Your task to perform on an android device: Clear all items from cart on target.com. Add "logitech g pro" to the cart on target.com Image 0: 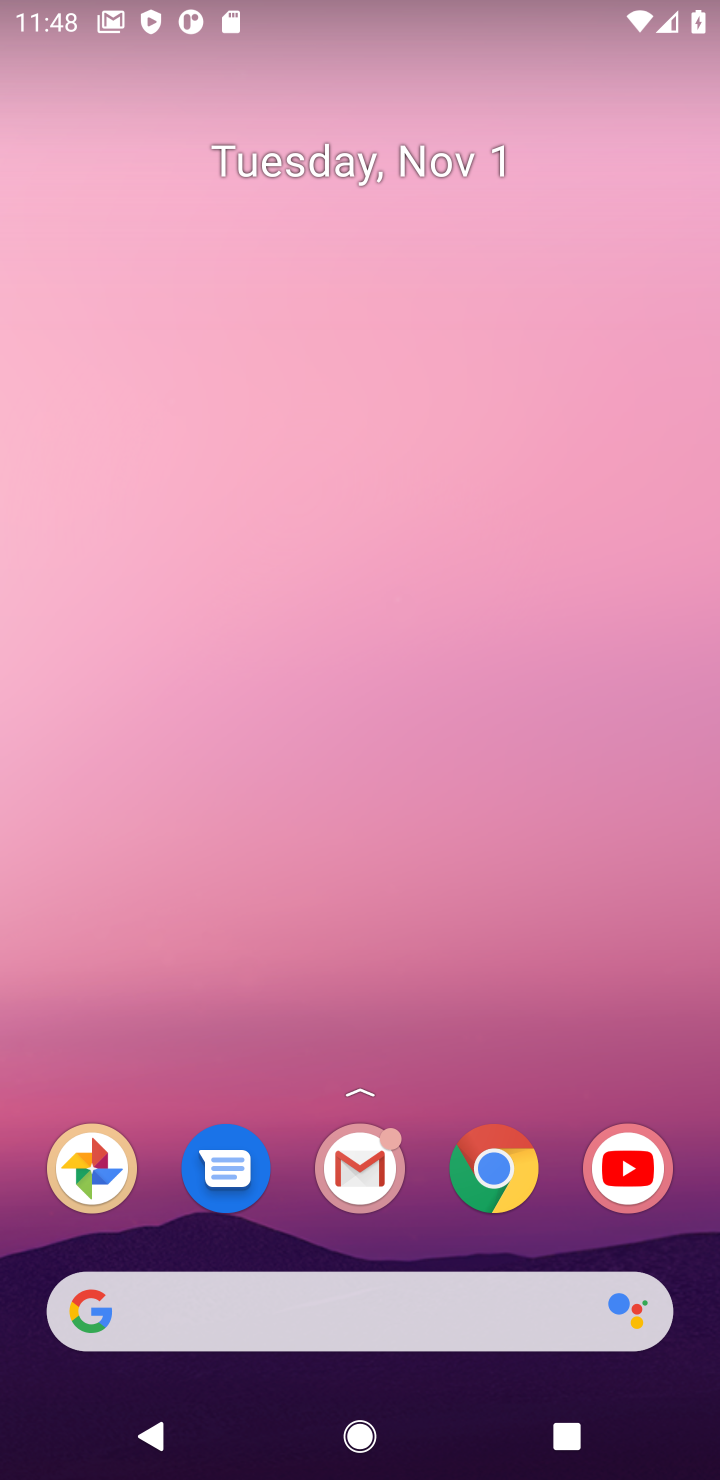
Step 0: click (507, 1163)
Your task to perform on an android device: Clear all items from cart on target.com. Add "logitech g pro" to the cart on target.com Image 1: 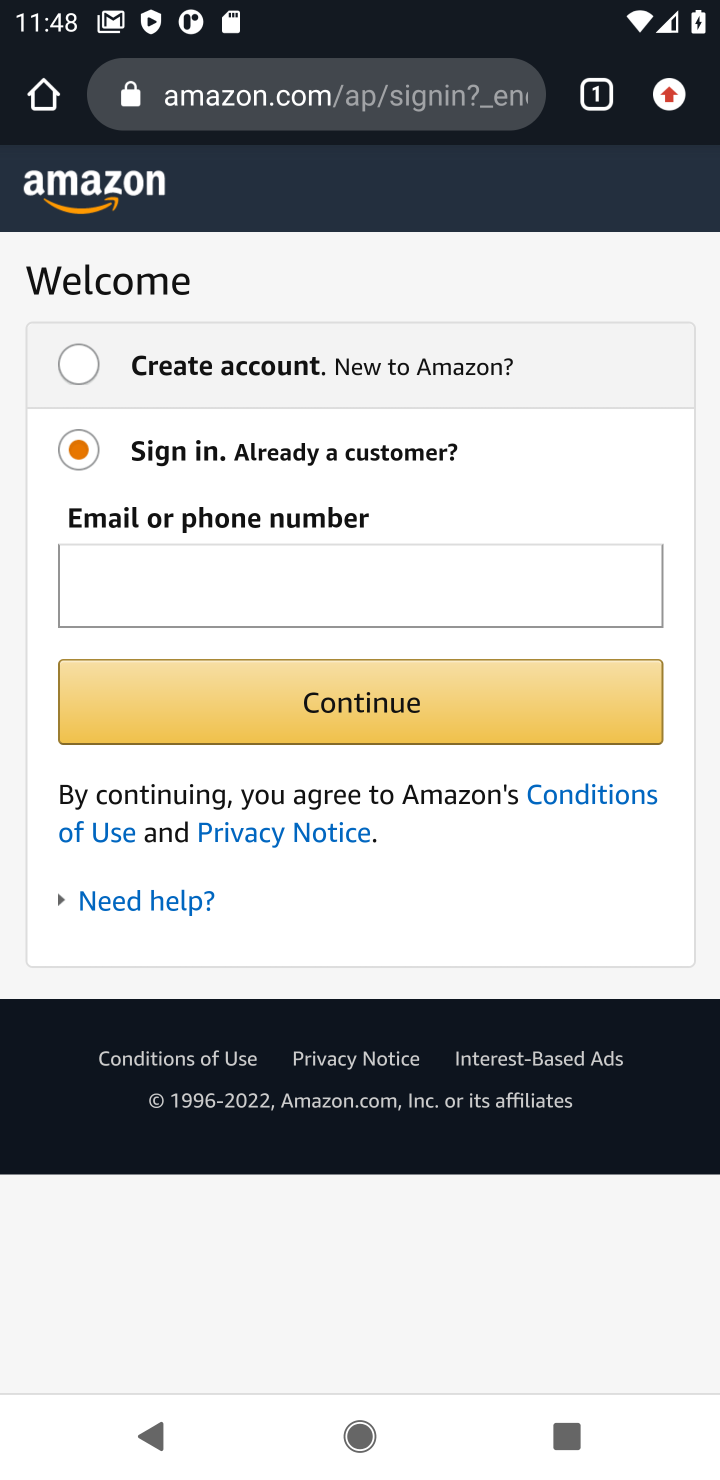
Step 1: click (347, 97)
Your task to perform on an android device: Clear all items from cart on target.com. Add "logitech g pro" to the cart on target.com Image 2: 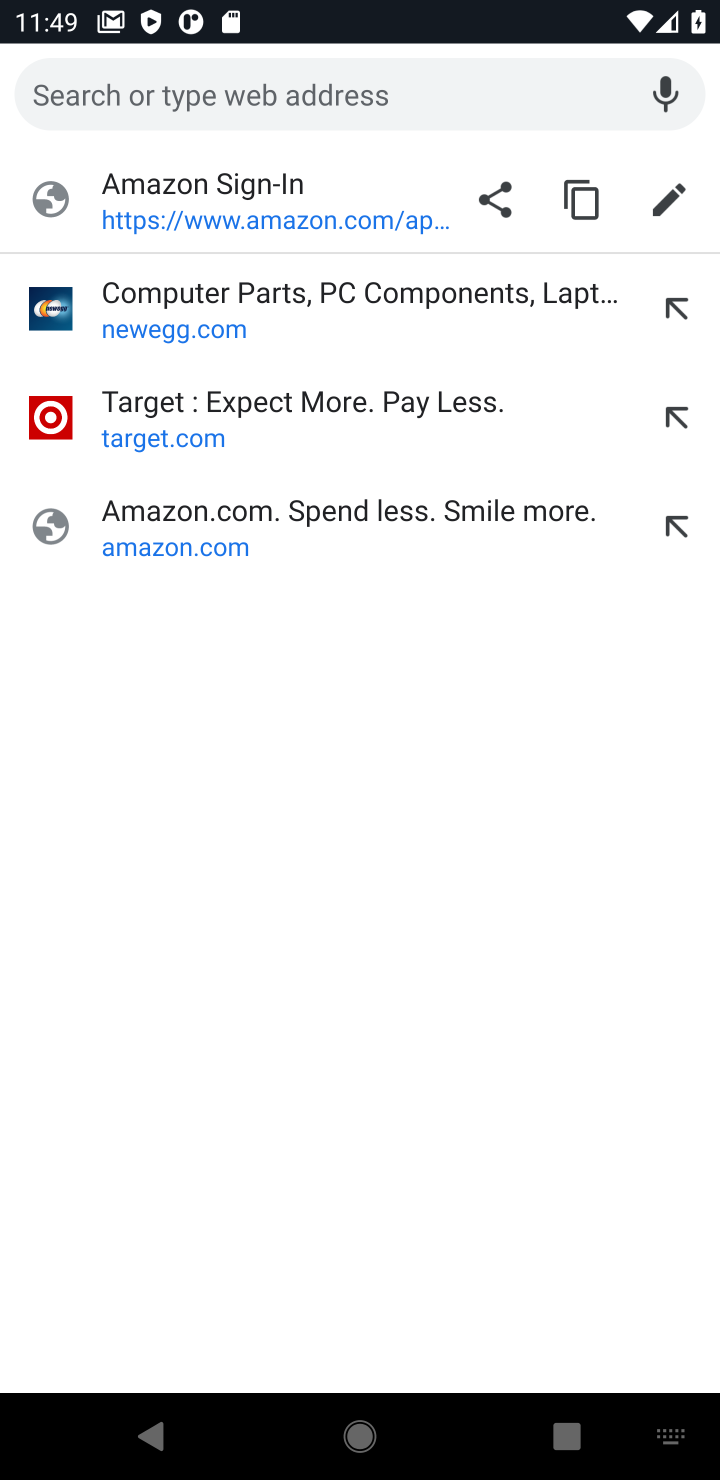
Step 2: type "target.com"
Your task to perform on an android device: Clear all items from cart on target.com. Add "logitech g pro" to the cart on target.com Image 3: 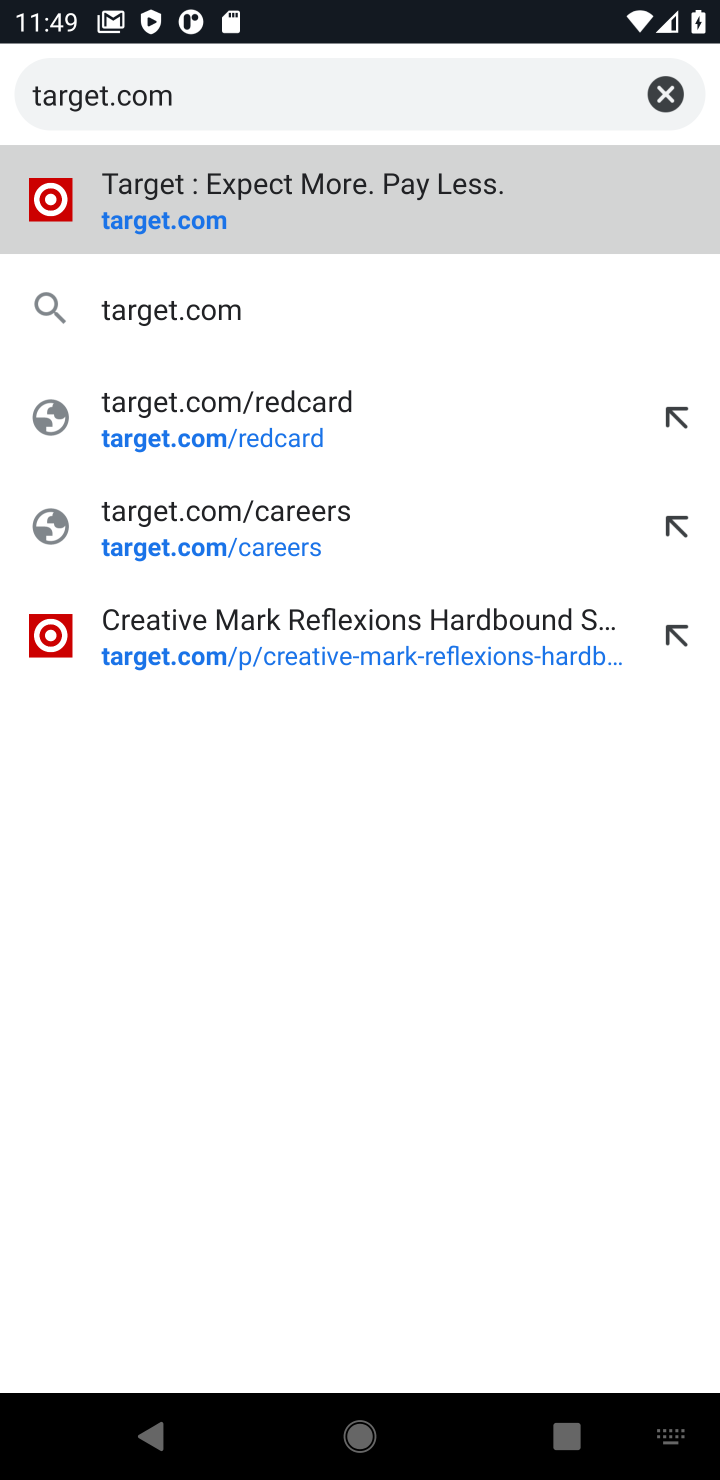
Step 3: press enter
Your task to perform on an android device: Clear all items from cart on target.com. Add "logitech g pro" to the cart on target.com Image 4: 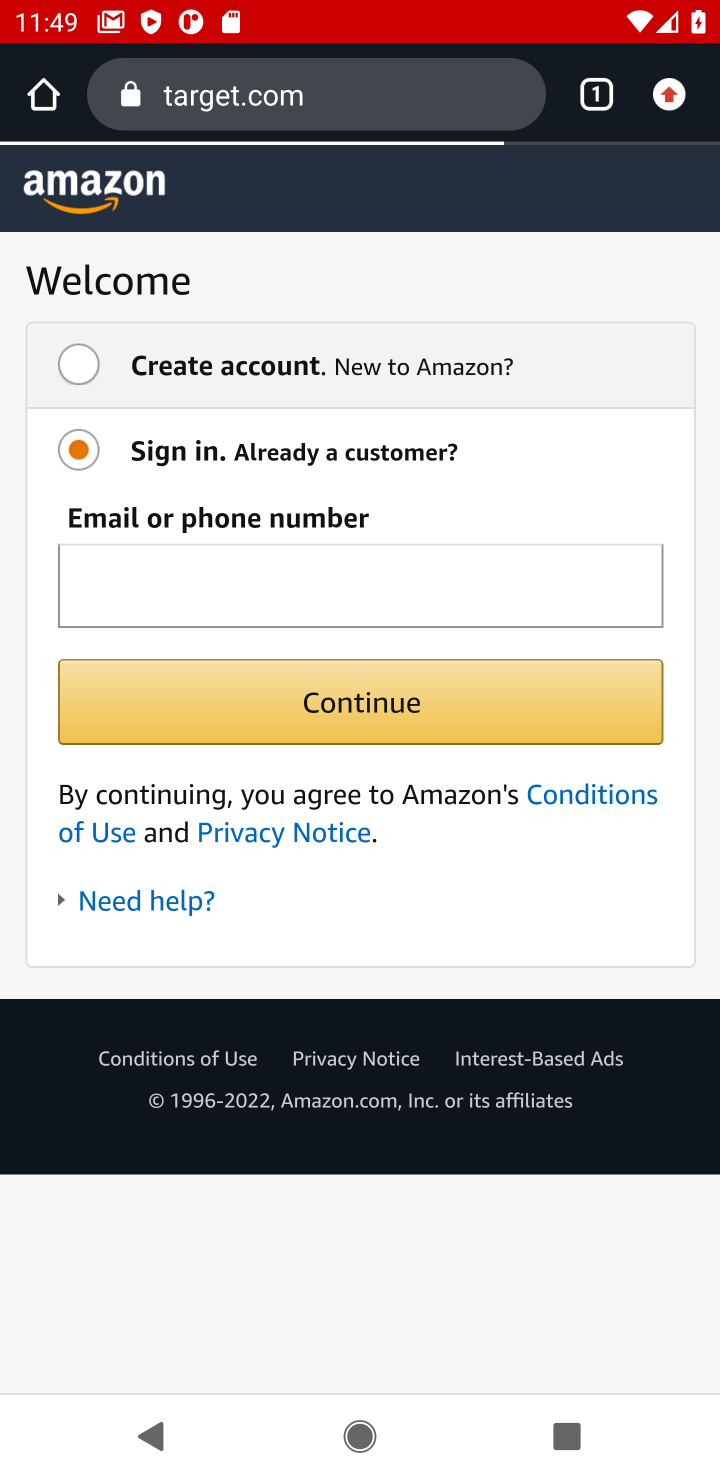
Step 4: click (296, 328)
Your task to perform on an android device: Clear all items from cart on target.com. Add "logitech g pro" to the cart on target.com Image 5: 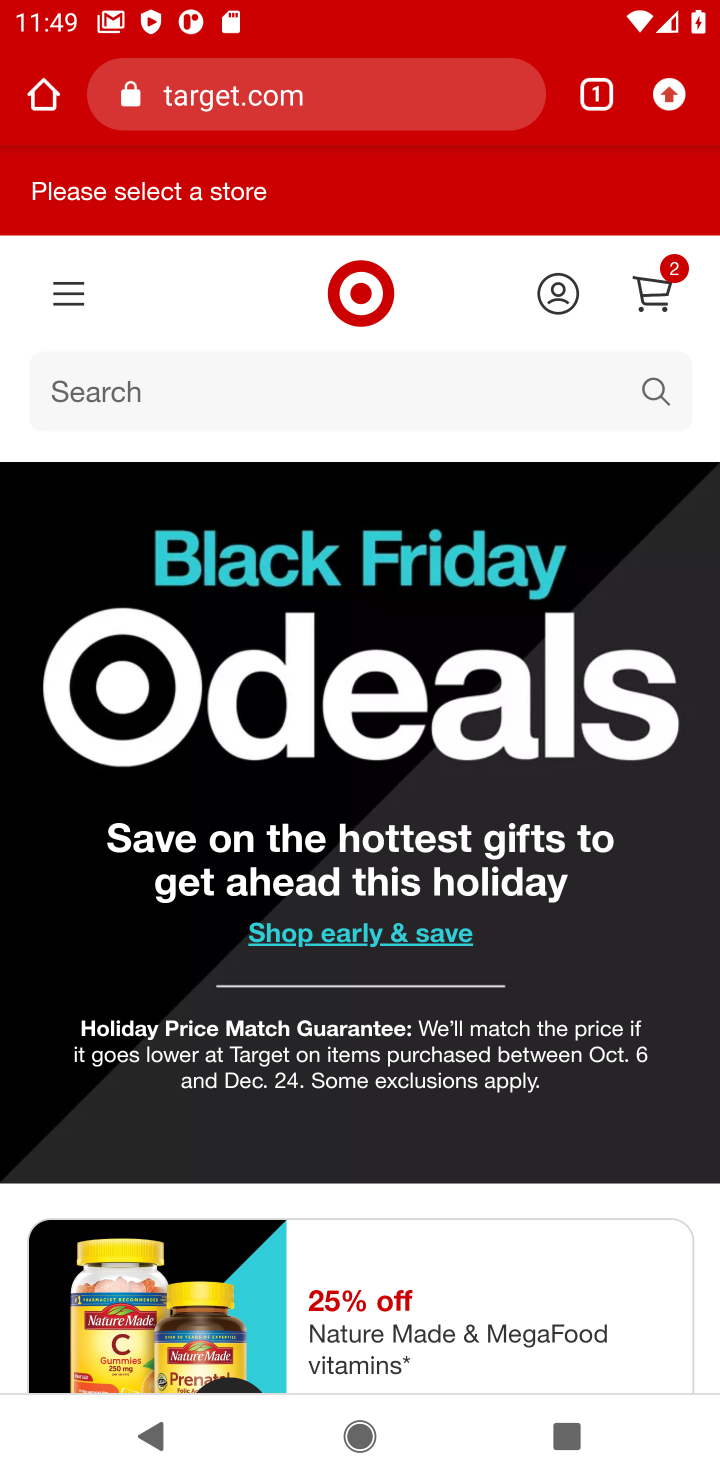
Step 5: click (650, 296)
Your task to perform on an android device: Clear all items from cart on target.com. Add "logitech g pro" to the cart on target.com Image 6: 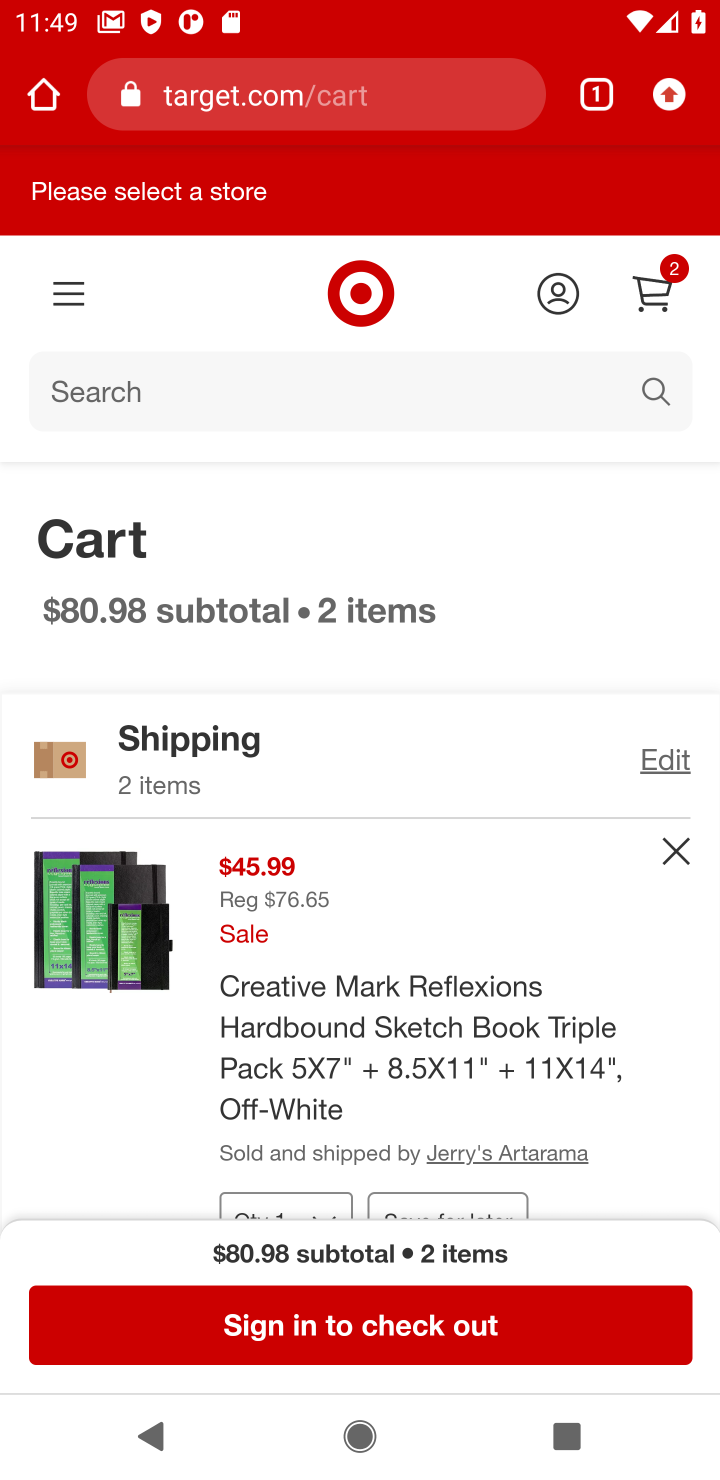
Step 6: click (677, 852)
Your task to perform on an android device: Clear all items from cart on target.com. Add "logitech g pro" to the cart on target.com Image 7: 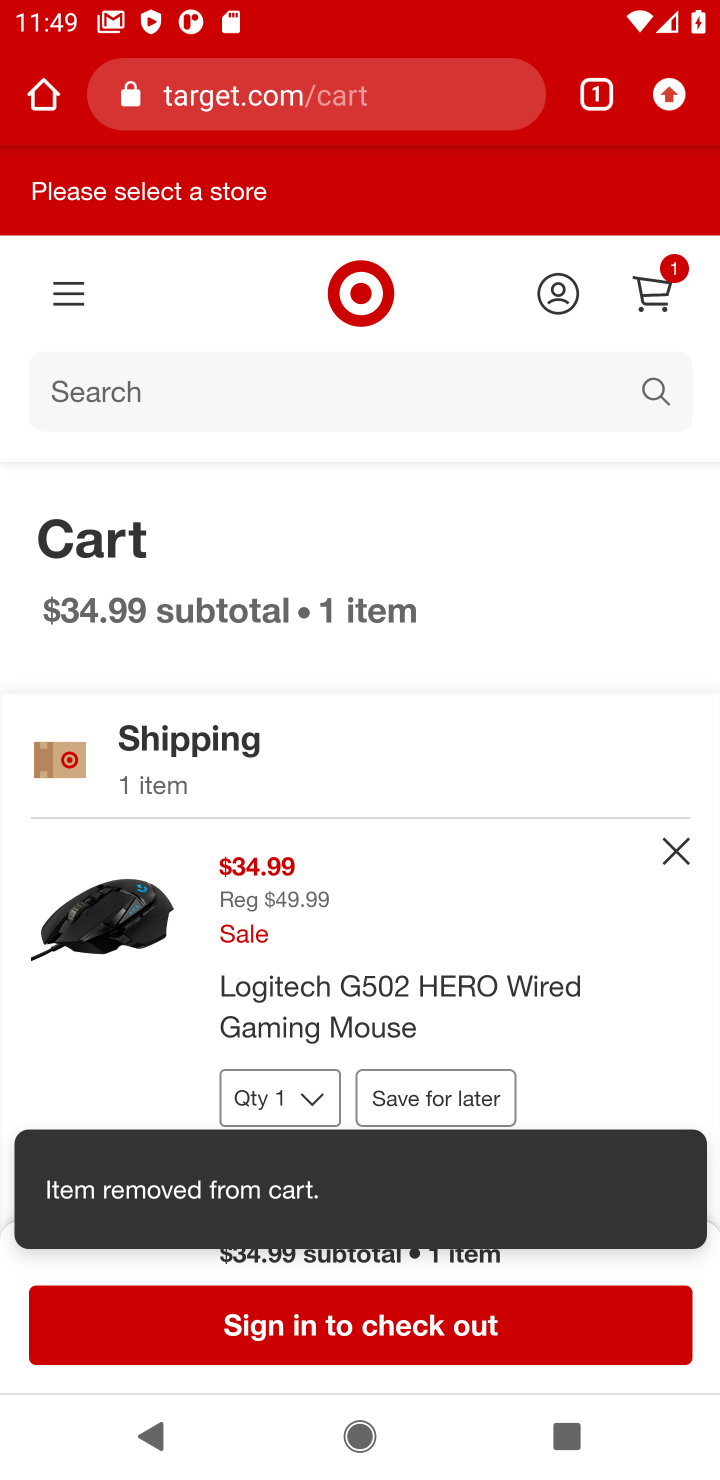
Step 7: click (677, 852)
Your task to perform on an android device: Clear all items from cart on target.com. Add "logitech g pro" to the cart on target.com Image 8: 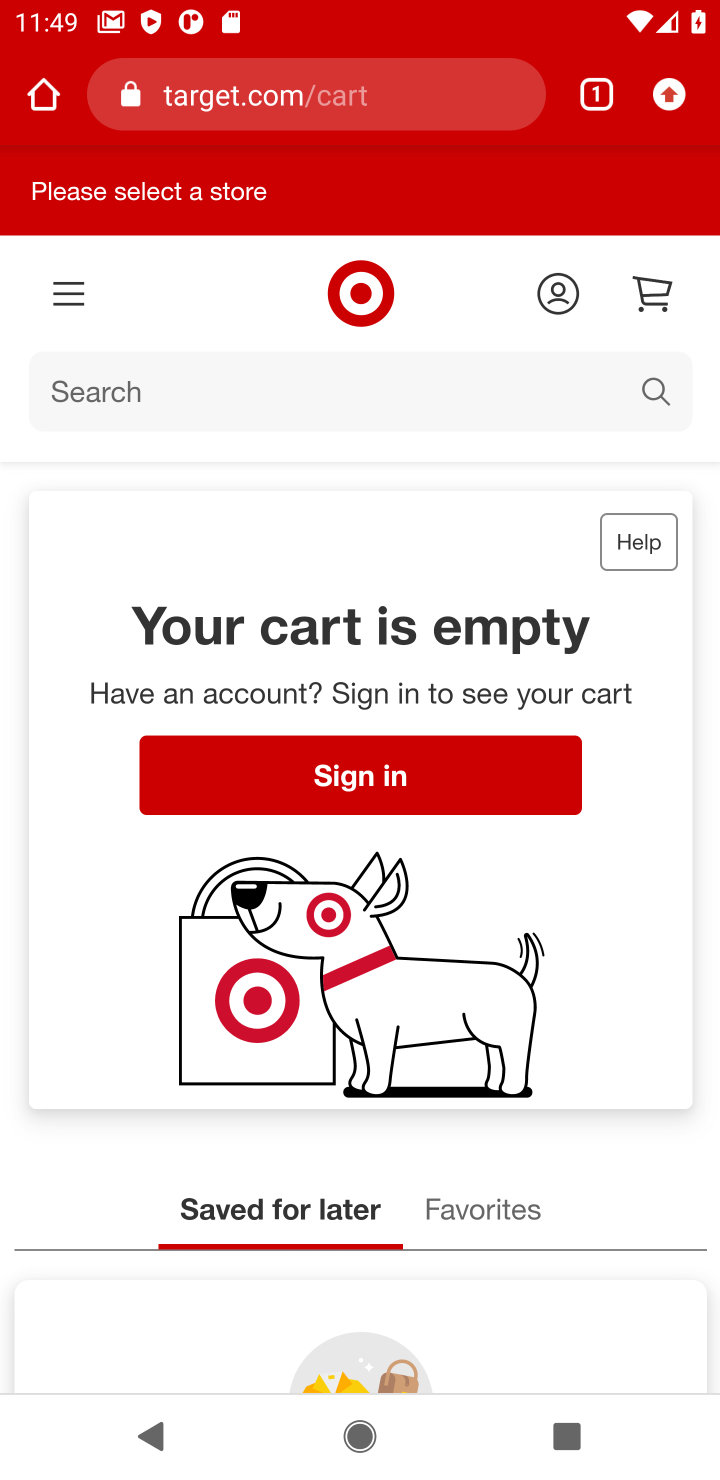
Step 8: click (662, 390)
Your task to perform on an android device: Clear all items from cart on target.com. Add "logitech g pro" to the cart on target.com Image 9: 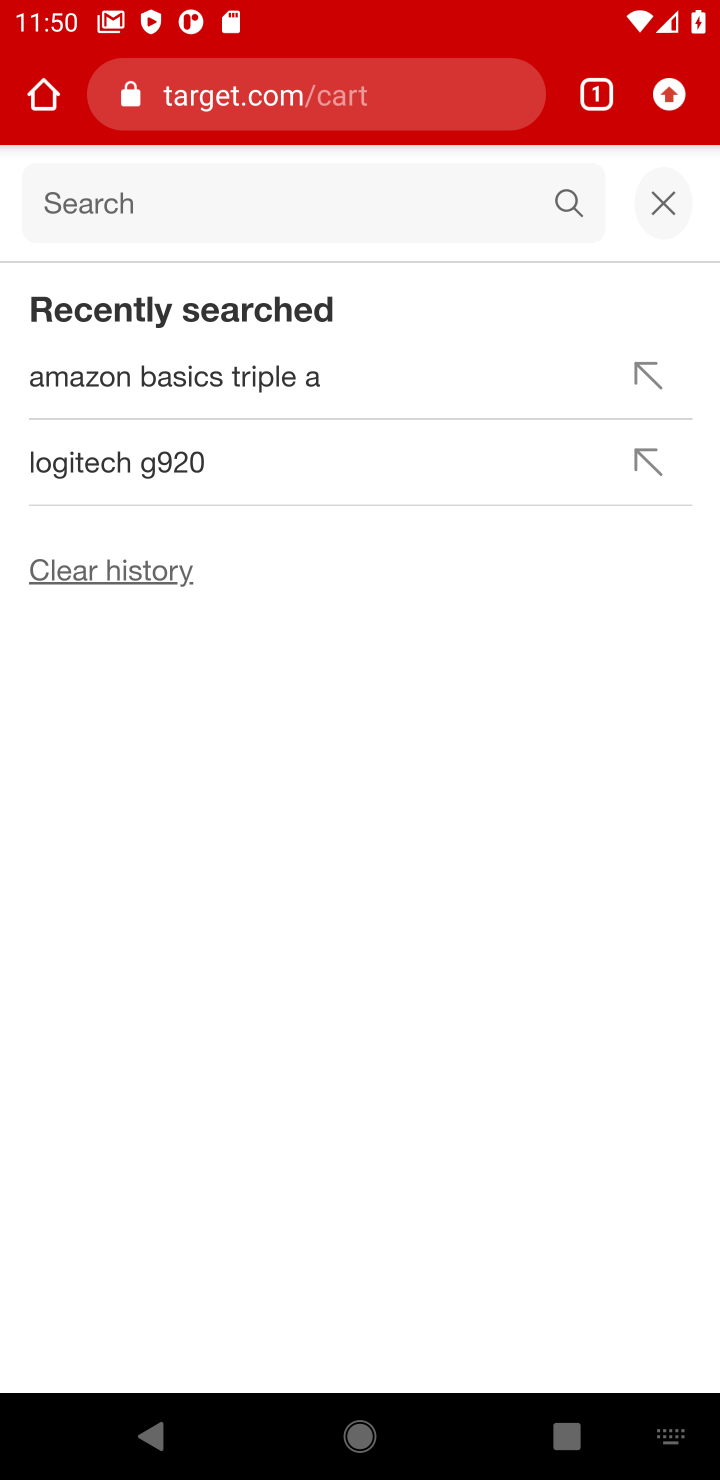
Step 9: type "logitech g pro"
Your task to perform on an android device: Clear all items from cart on target.com. Add "logitech g pro" to the cart on target.com Image 10: 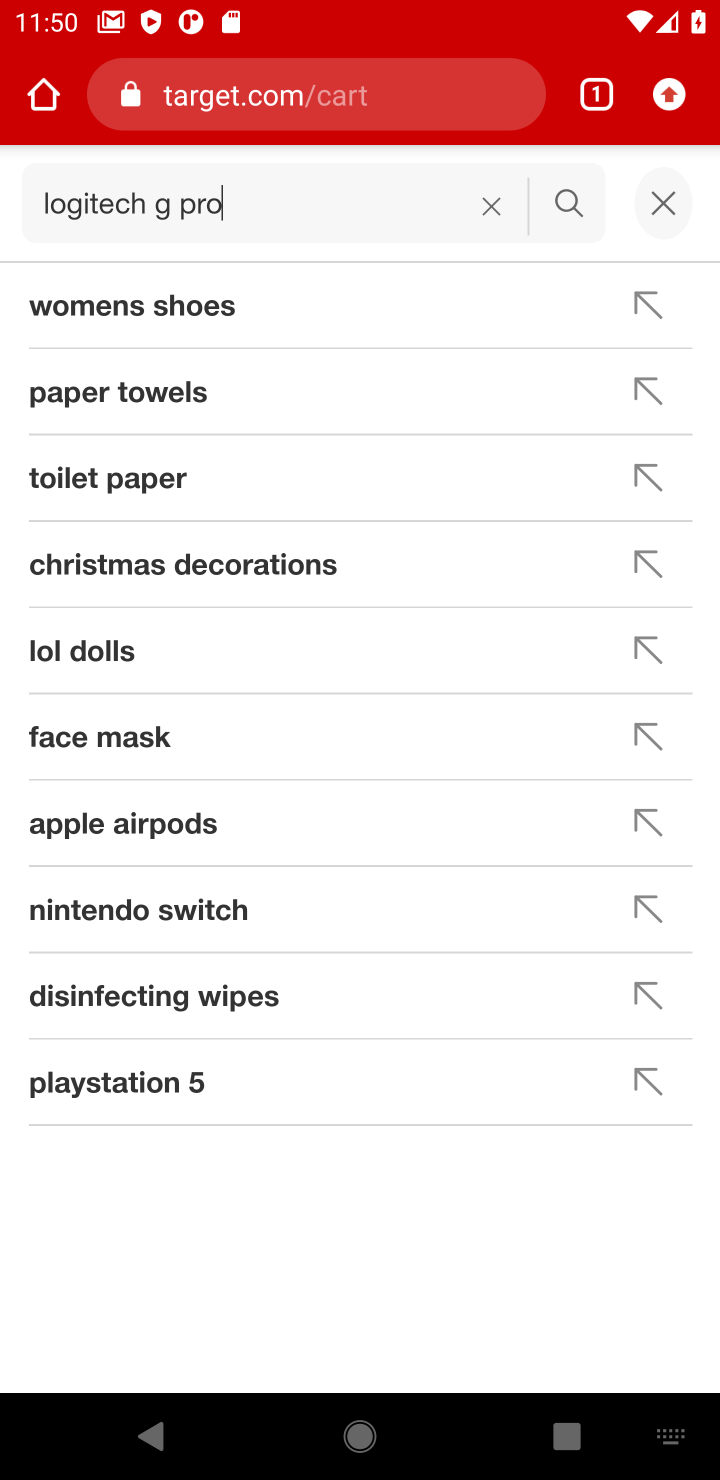
Step 10: press enter
Your task to perform on an android device: Clear all items from cart on target.com. Add "logitech g pro" to the cart on target.com Image 11: 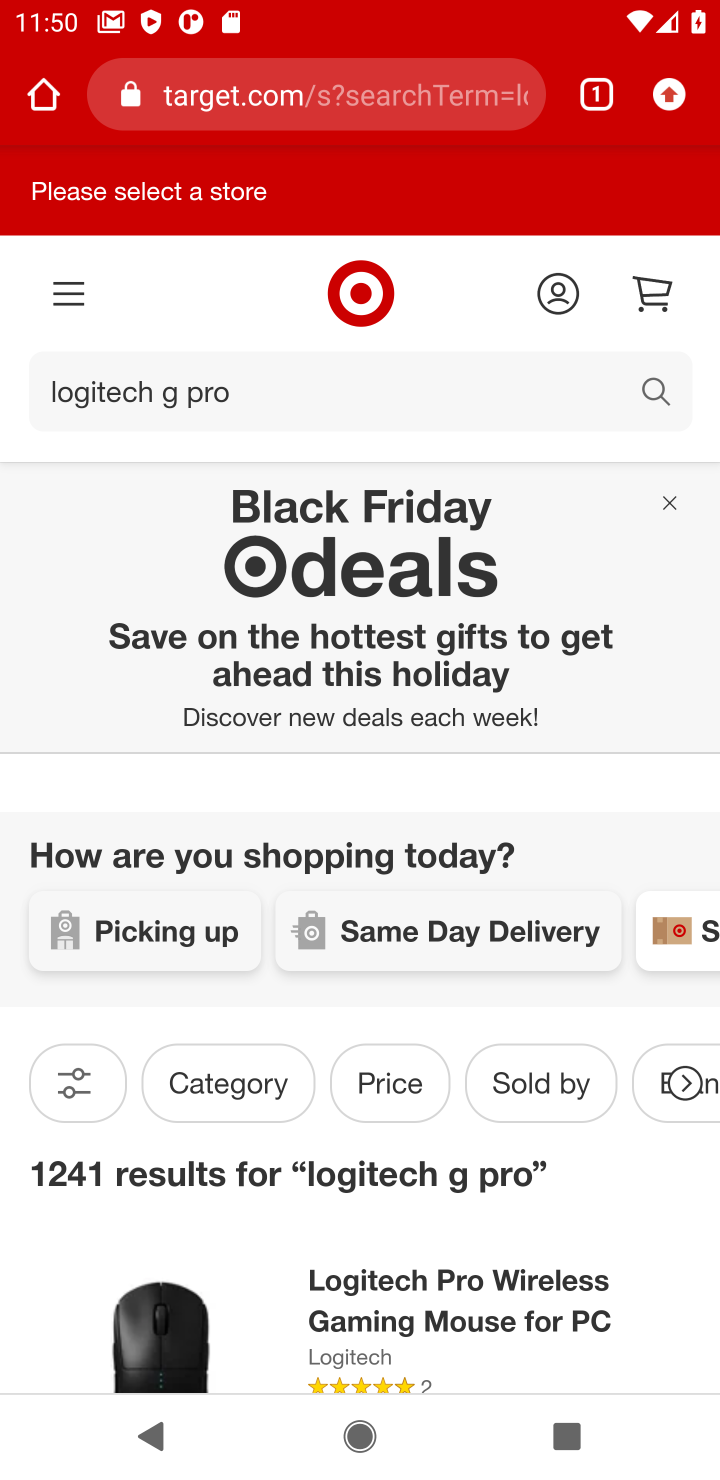
Step 11: drag from (454, 1235) to (558, 716)
Your task to perform on an android device: Clear all items from cart on target.com. Add "logitech g pro" to the cart on target.com Image 12: 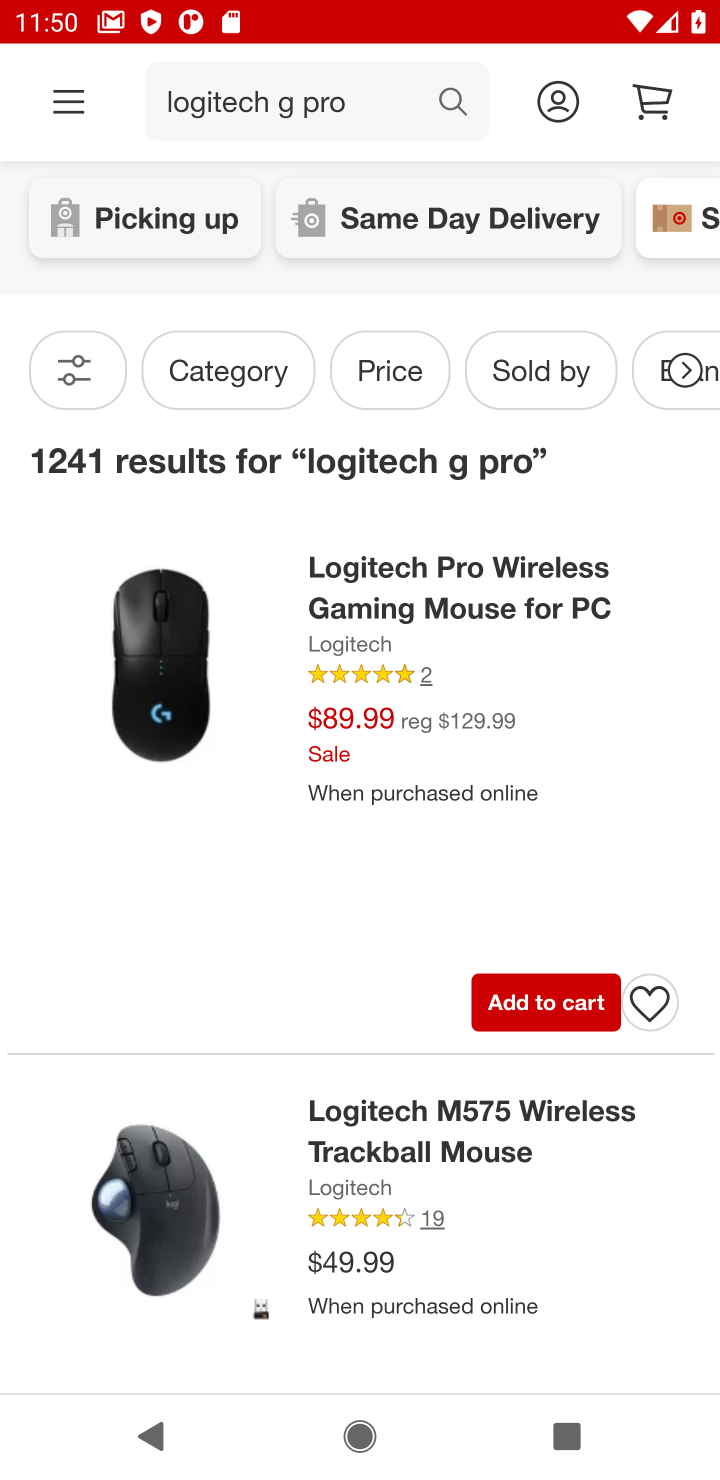
Step 12: click (183, 683)
Your task to perform on an android device: Clear all items from cart on target.com. Add "logitech g pro" to the cart on target.com Image 13: 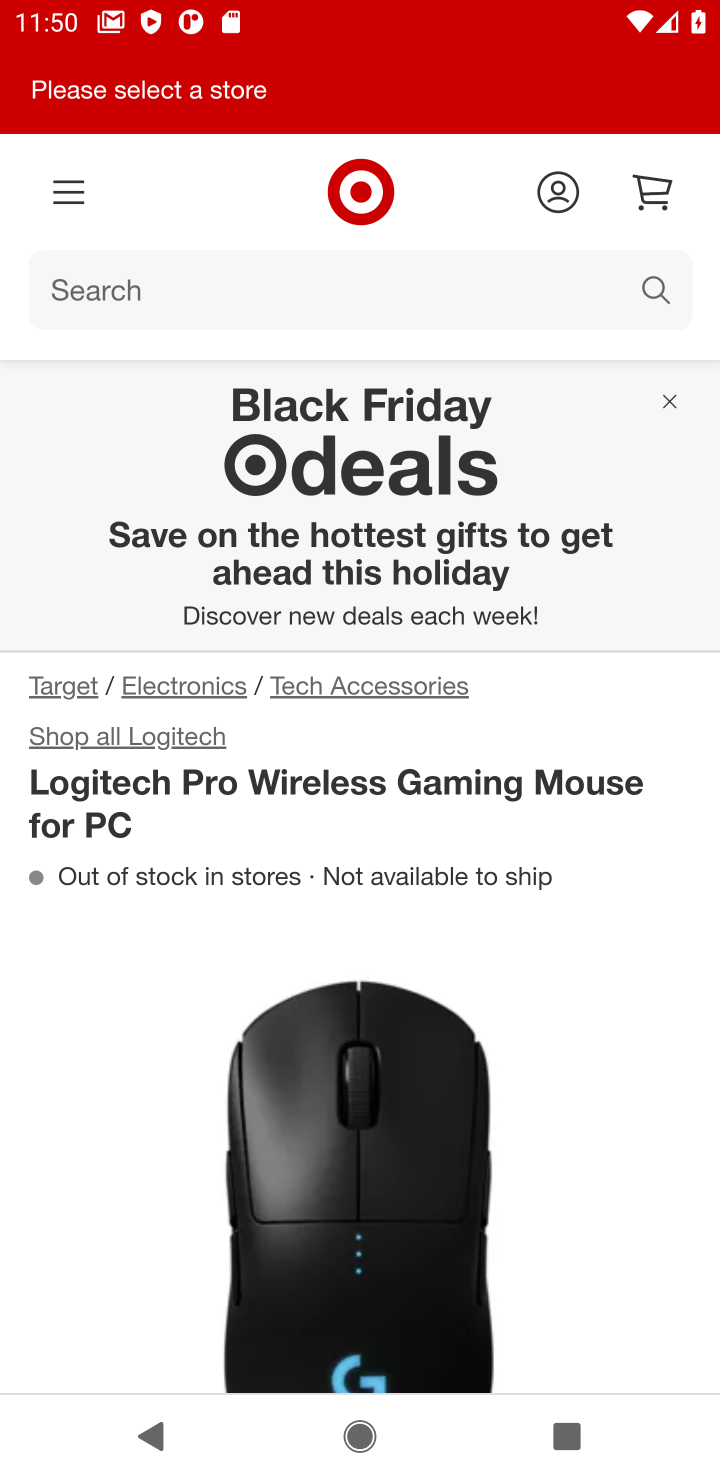
Step 13: drag from (502, 1000) to (463, 235)
Your task to perform on an android device: Clear all items from cart on target.com. Add "logitech g pro" to the cart on target.com Image 14: 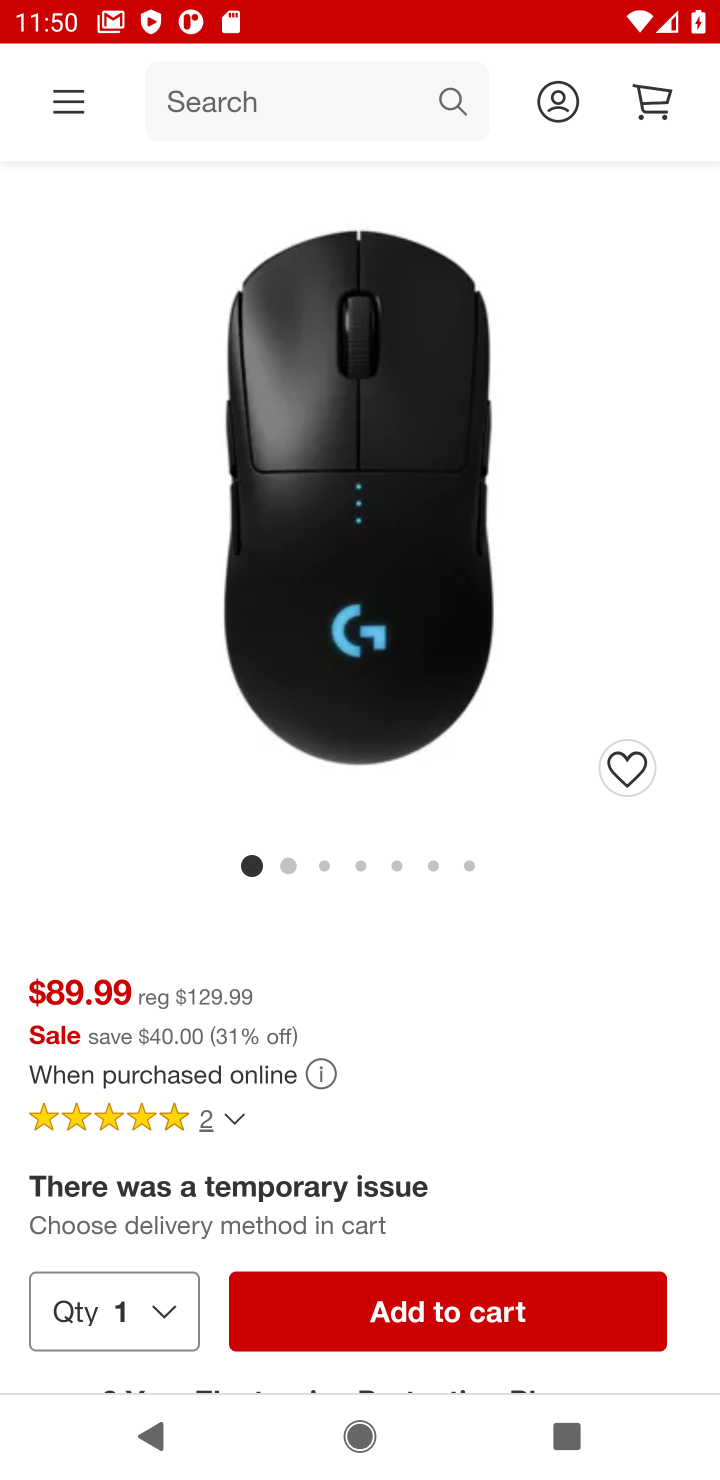
Step 14: click (519, 1305)
Your task to perform on an android device: Clear all items from cart on target.com. Add "logitech g pro" to the cart on target.com Image 15: 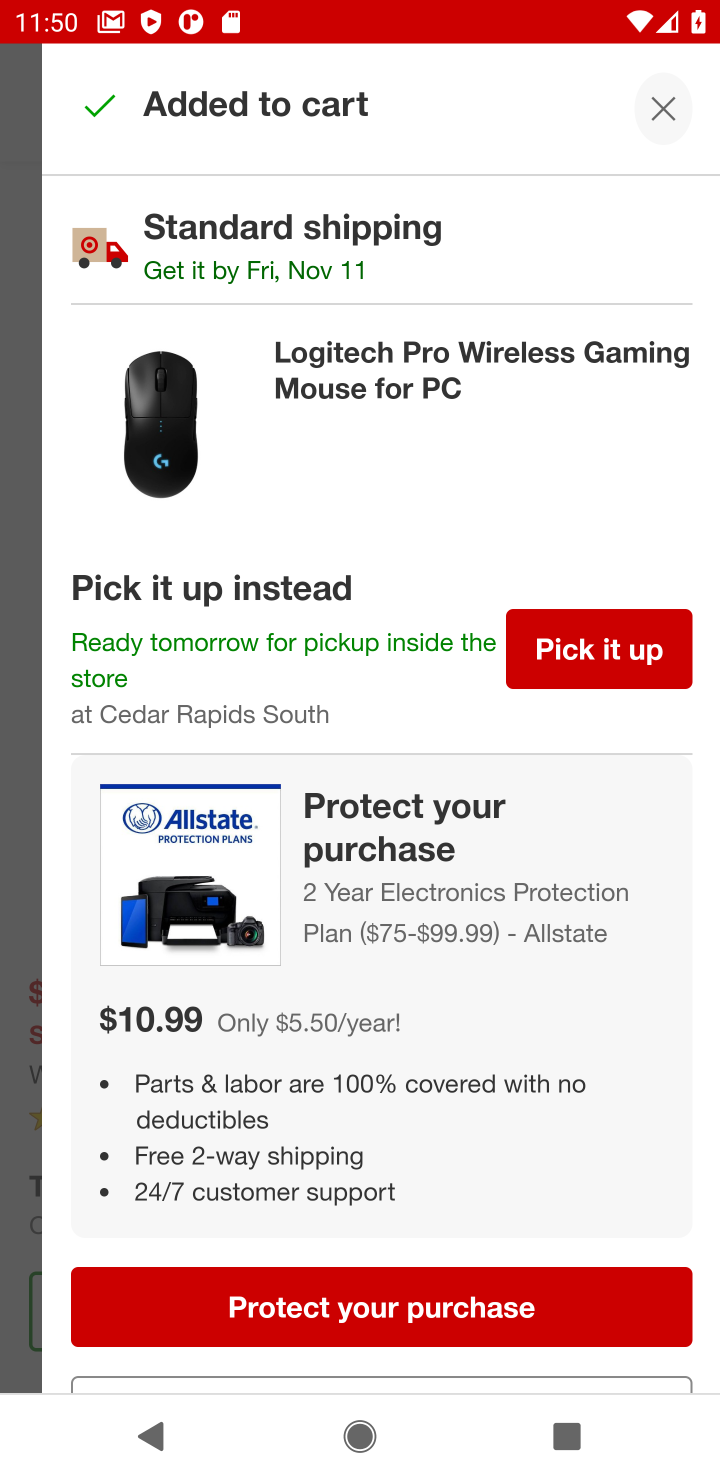
Step 15: task complete